Your task to perform on an android device: all mails in gmail Image 0: 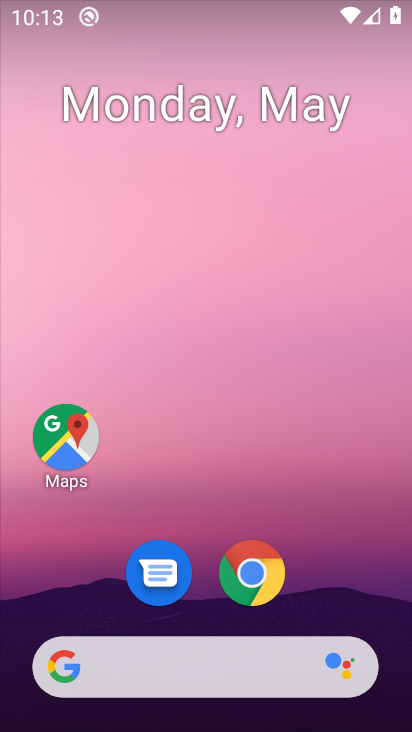
Step 0: drag from (185, 486) to (236, 15)
Your task to perform on an android device: all mails in gmail Image 1: 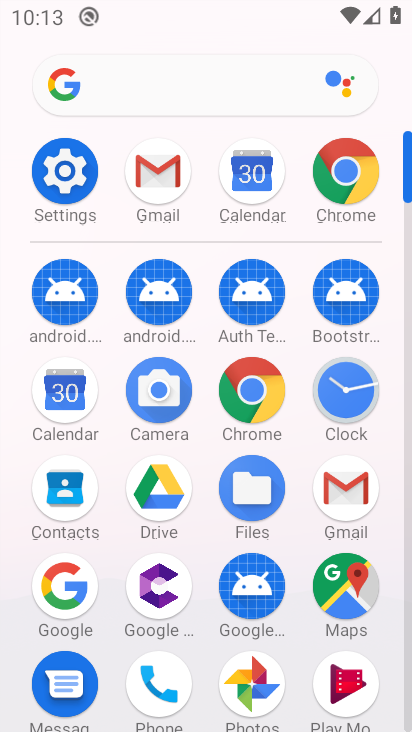
Step 1: click (162, 180)
Your task to perform on an android device: all mails in gmail Image 2: 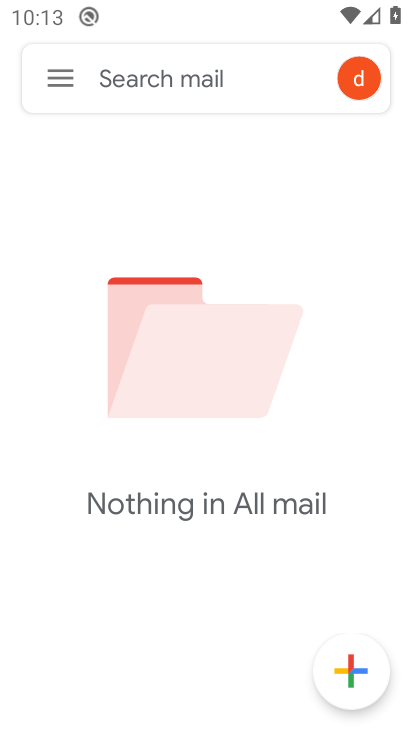
Step 2: task complete